Your task to perform on an android device: Open calendar and show me the first week of next month Image 0: 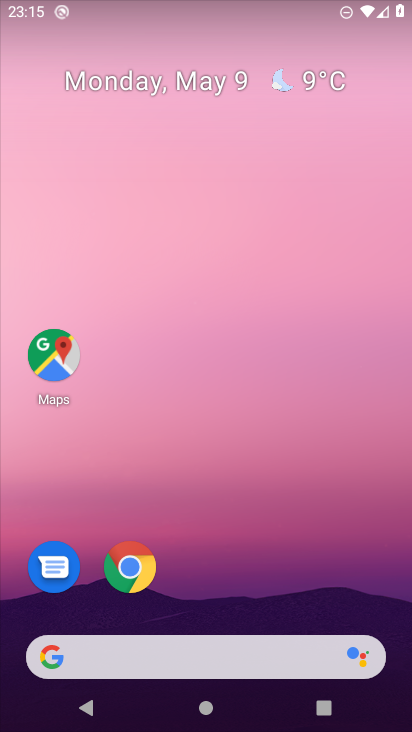
Step 0: drag from (219, 608) to (216, 22)
Your task to perform on an android device: Open calendar and show me the first week of next month Image 1: 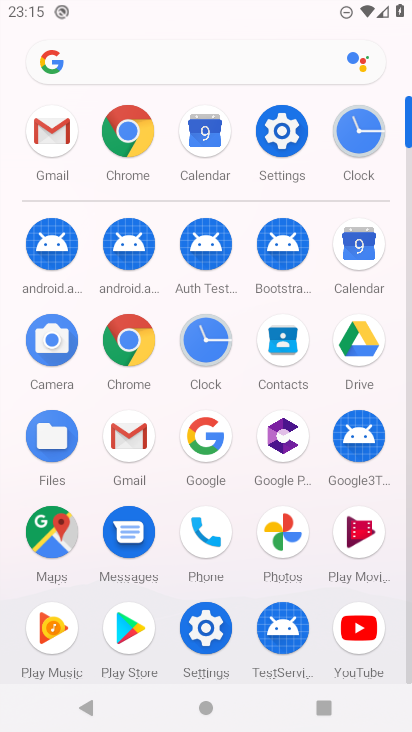
Step 1: click (363, 248)
Your task to perform on an android device: Open calendar and show me the first week of next month Image 2: 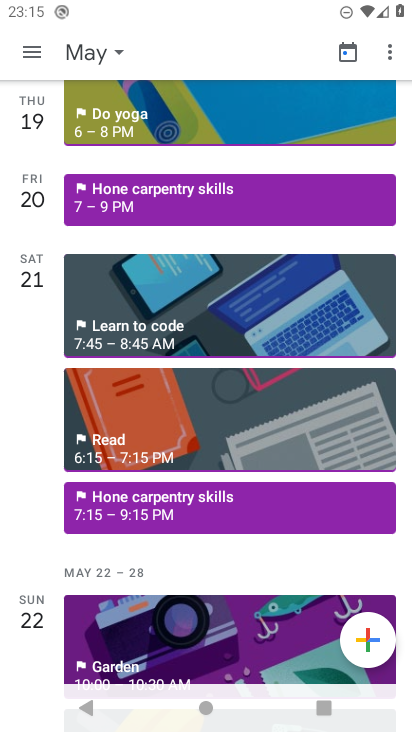
Step 2: click (32, 51)
Your task to perform on an android device: Open calendar and show me the first week of next month Image 3: 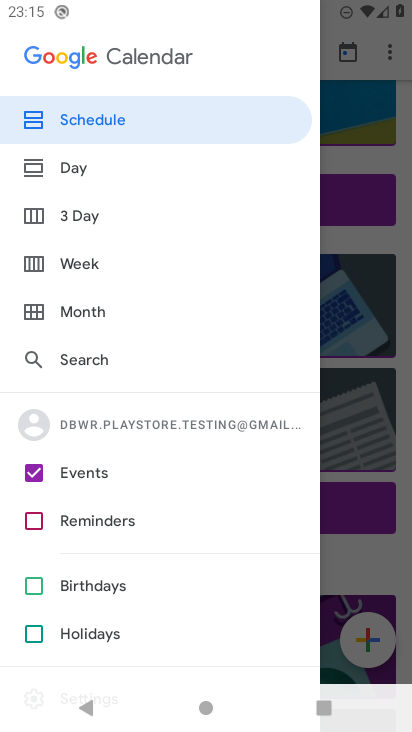
Step 3: click (110, 257)
Your task to perform on an android device: Open calendar and show me the first week of next month Image 4: 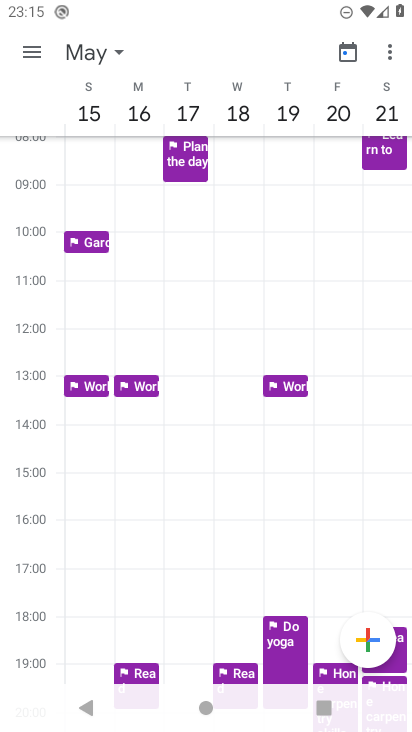
Step 4: drag from (381, 108) to (89, 121)
Your task to perform on an android device: Open calendar and show me the first week of next month Image 5: 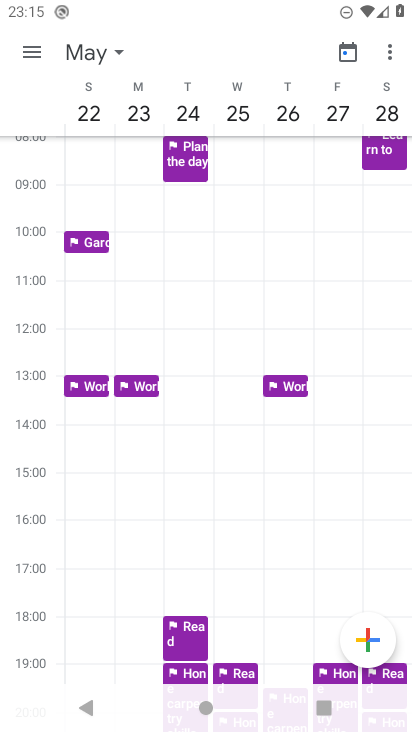
Step 5: drag from (383, 109) to (16, 104)
Your task to perform on an android device: Open calendar and show me the first week of next month Image 6: 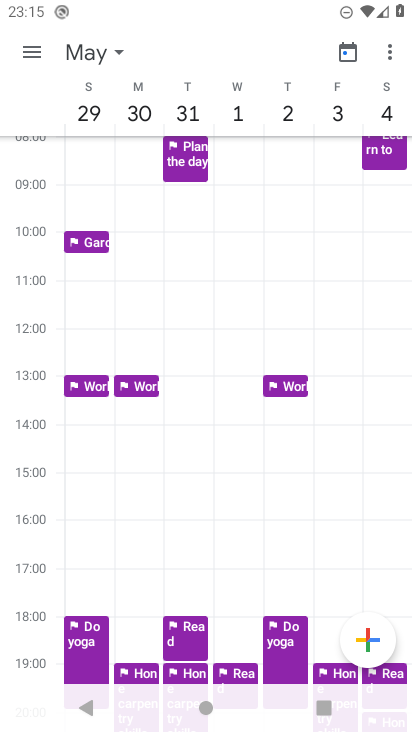
Step 6: drag from (393, 115) to (54, 110)
Your task to perform on an android device: Open calendar and show me the first week of next month Image 7: 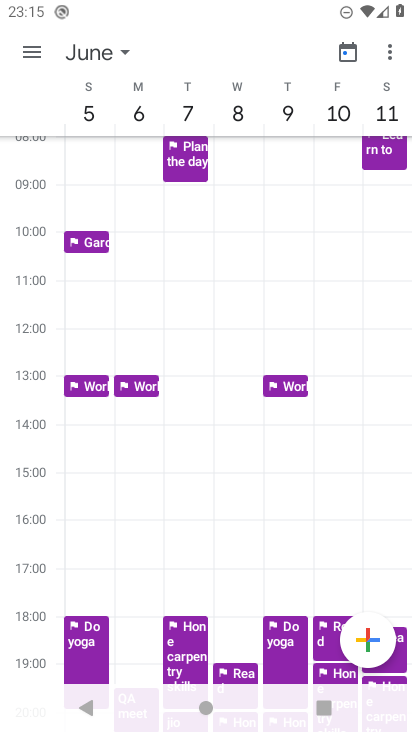
Step 7: click (81, 119)
Your task to perform on an android device: Open calendar and show me the first week of next month Image 8: 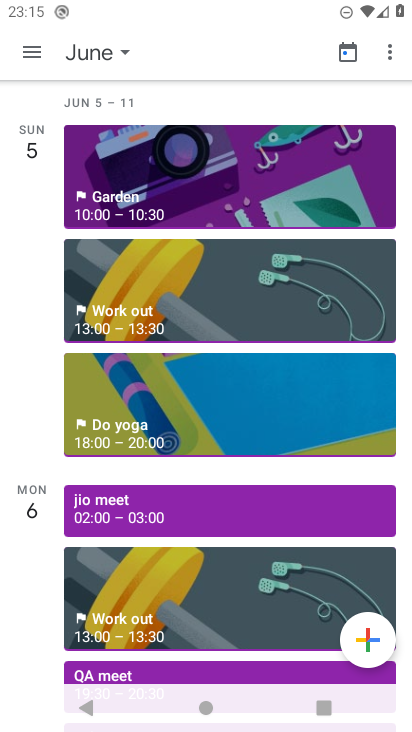
Step 8: task complete